Your task to perform on an android device: check battery use Image 0: 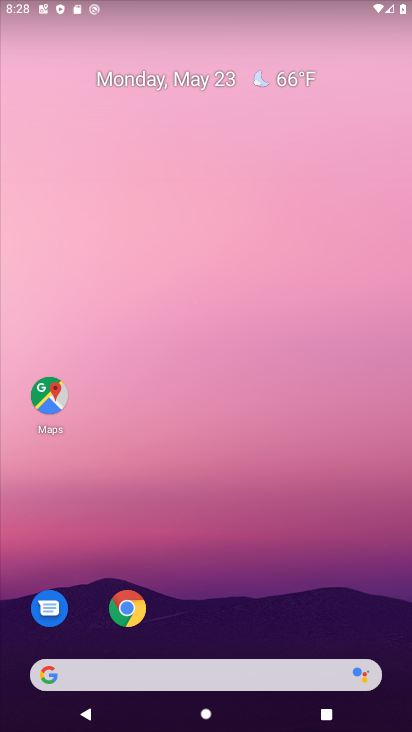
Step 0: drag from (227, 726) to (219, 29)
Your task to perform on an android device: check battery use Image 1: 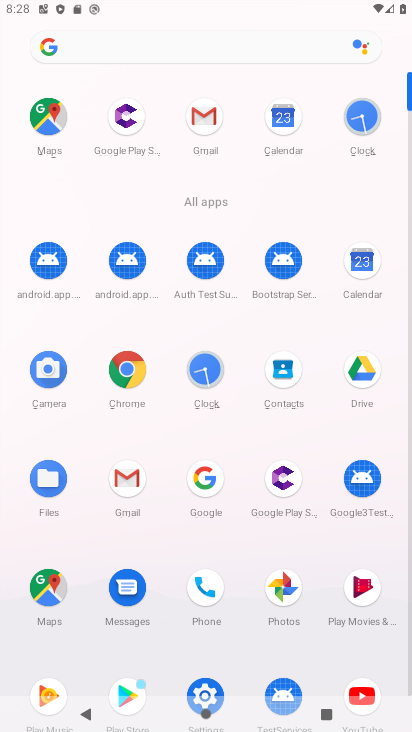
Step 1: click (202, 688)
Your task to perform on an android device: check battery use Image 2: 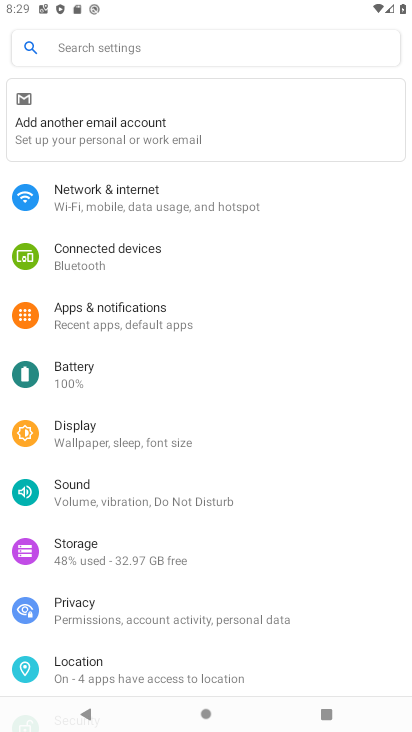
Step 2: click (66, 371)
Your task to perform on an android device: check battery use Image 3: 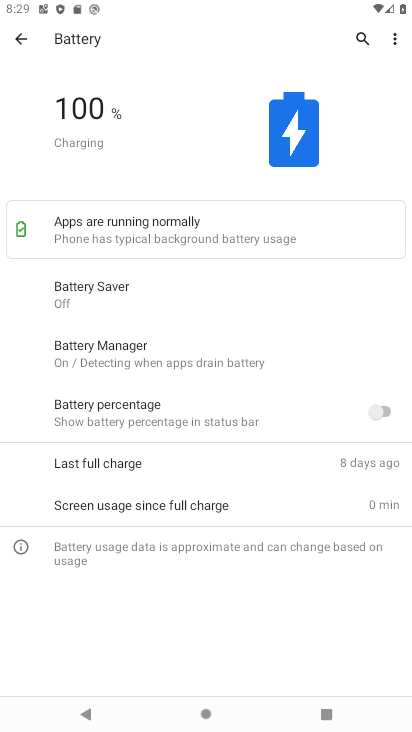
Step 3: click (396, 44)
Your task to perform on an android device: check battery use Image 4: 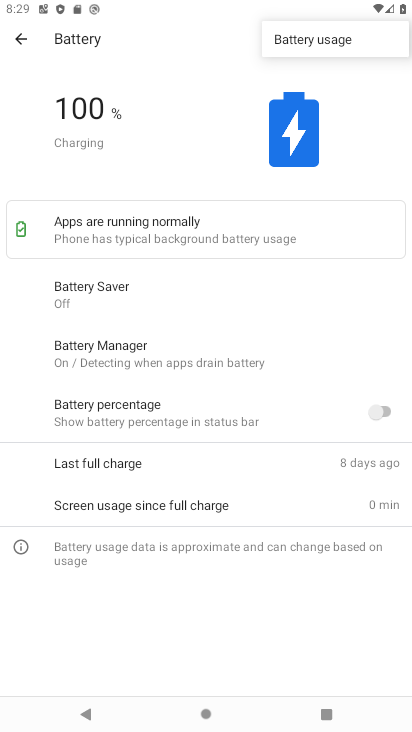
Step 4: click (316, 34)
Your task to perform on an android device: check battery use Image 5: 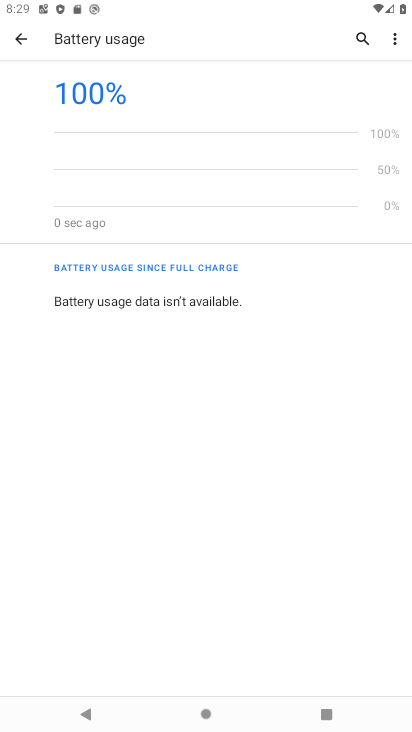
Step 5: task complete